Your task to perform on an android device: Check the news Image 0: 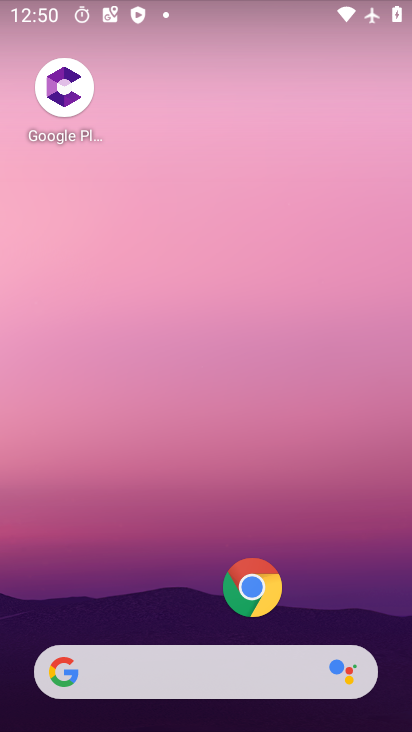
Step 0: drag from (3, 253) to (410, 291)
Your task to perform on an android device: Check the news Image 1: 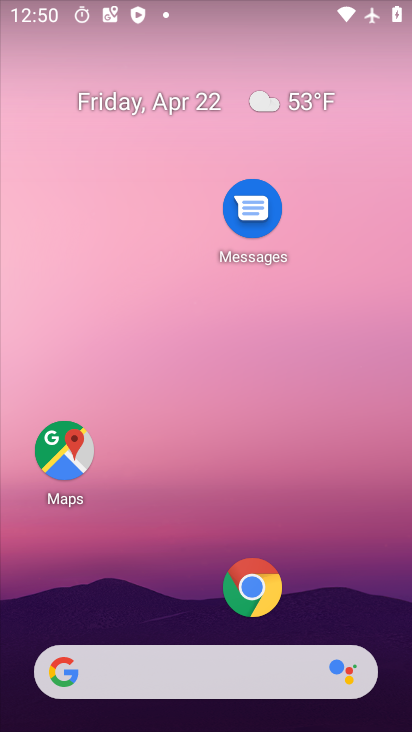
Step 1: task complete